Your task to perform on an android device: Open Chrome and go to the settings page Image 0: 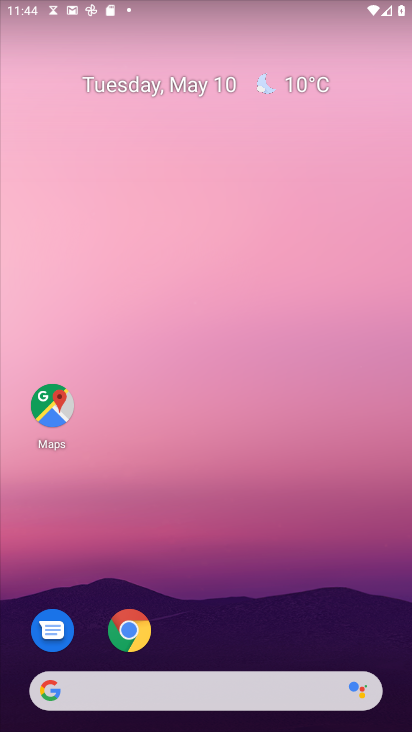
Step 0: click (132, 634)
Your task to perform on an android device: Open Chrome and go to the settings page Image 1: 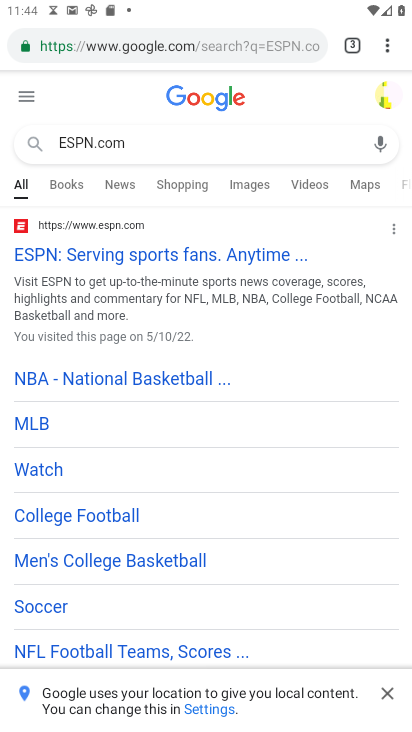
Step 1: click (393, 44)
Your task to perform on an android device: Open Chrome and go to the settings page Image 2: 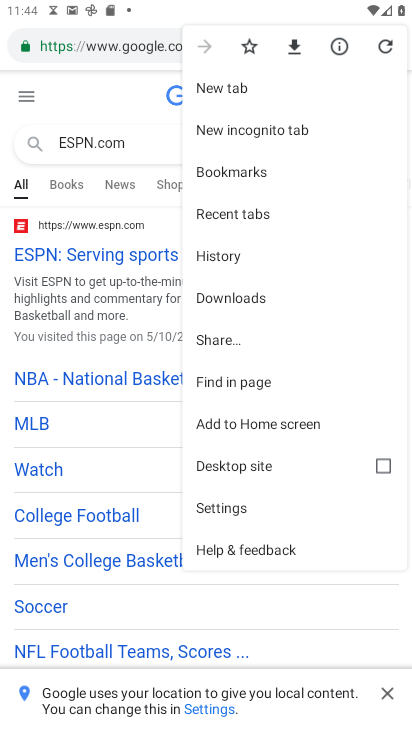
Step 2: click (217, 506)
Your task to perform on an android device: Open Chrome and go to the settings page Image 3: 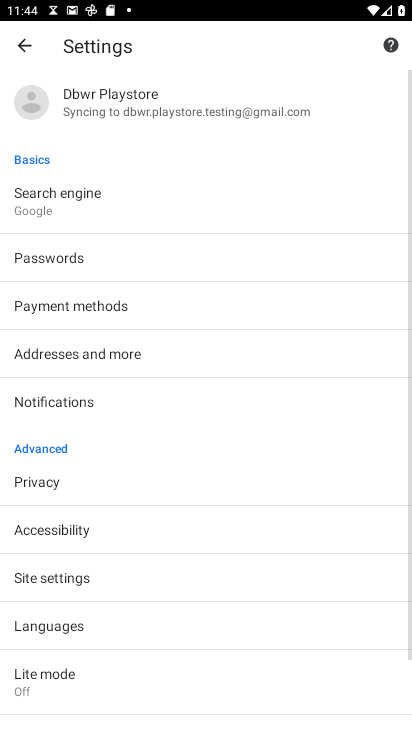
Step 3: task complete